Your task to perform on an android device: Show me the alarms in the clock app Image 0: 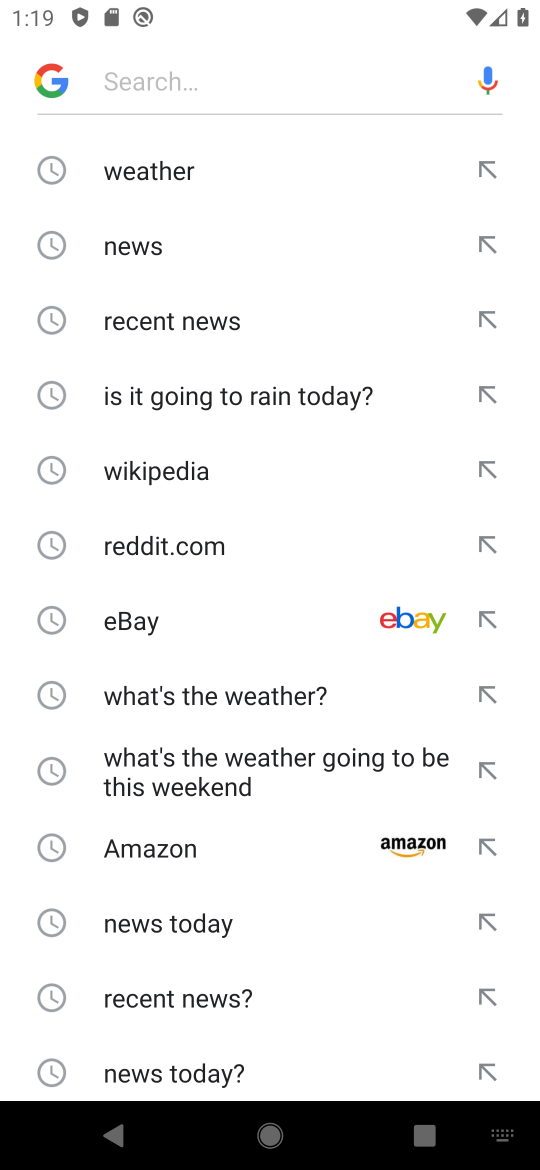
Step 0: press home button
Your task to perform on an android device: Show me the alarms in the clock app Image 1: 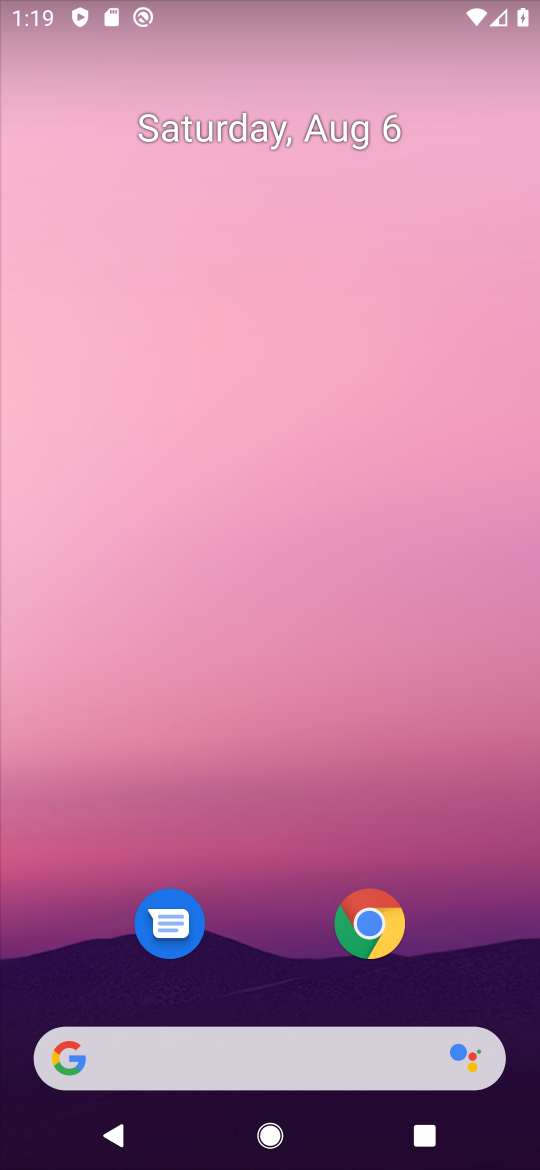
Step 1: drag from (316, 588) to (340, 425)
Your task to perform on an android device: Show me the alarms in the clock app Image 2: 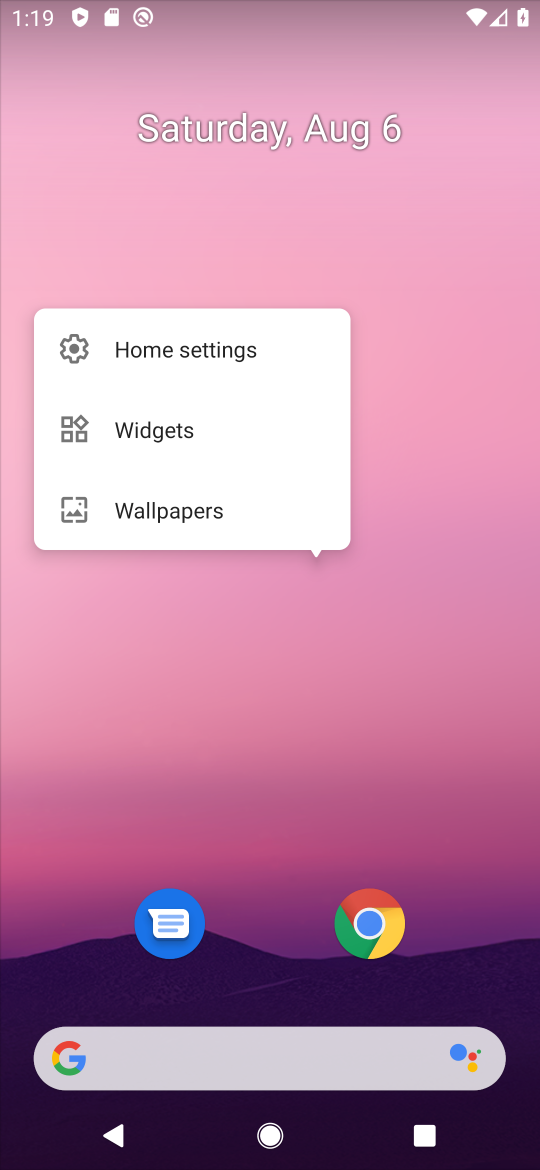
Step 2: drag from (291, 978) to (301, 264)
Your task to perform on an android device: Show me the alarms in the clock app Image 3: 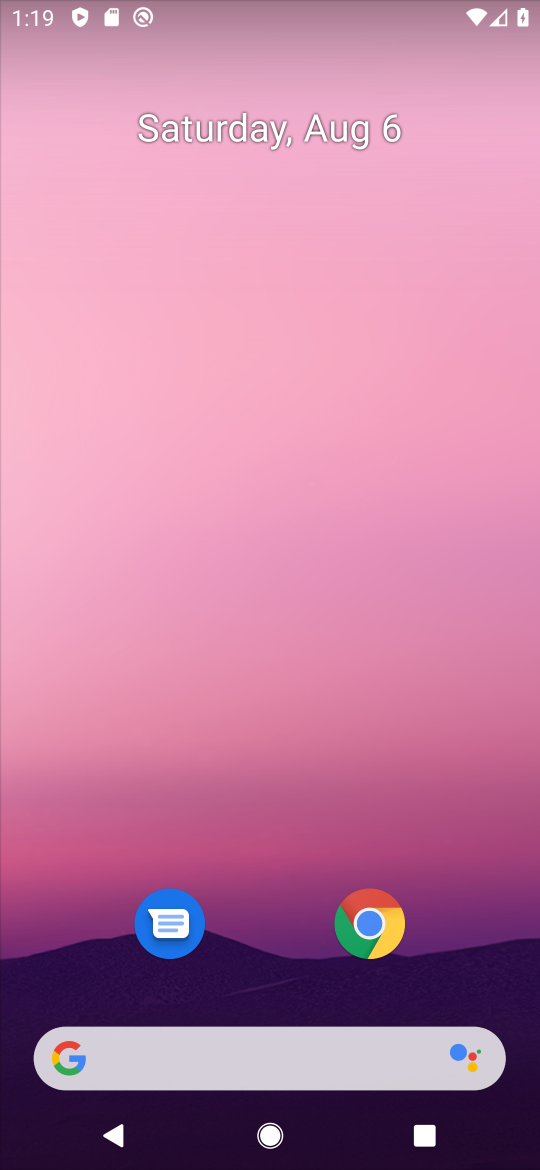
Step 3: drag from (280, 922) to (333, 340)
Your task to perform on an android device: Show me the alarms in the clock app Image 4: 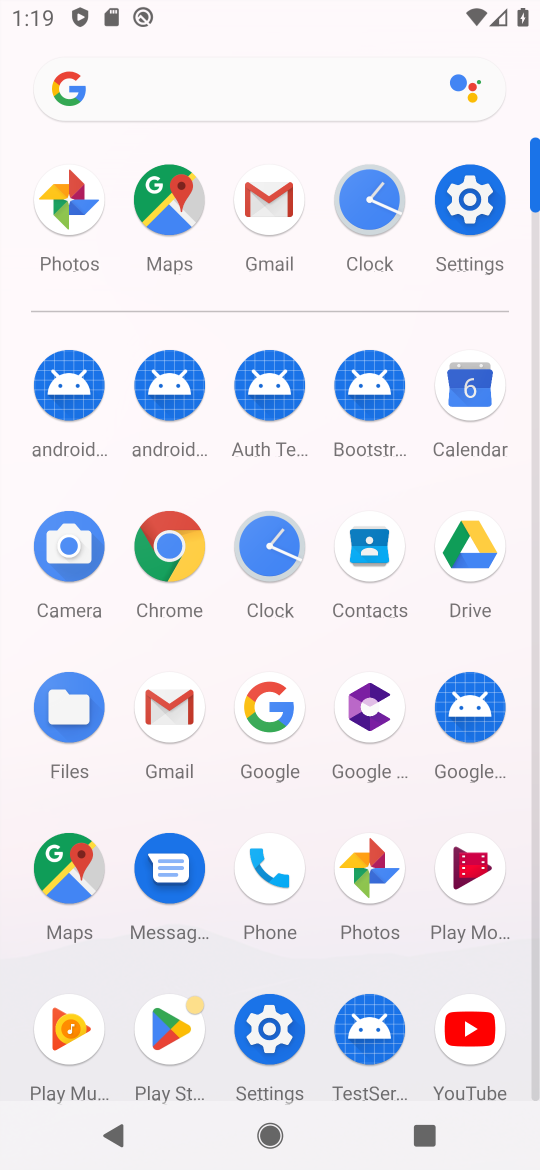
Step 4: click (255, 532)
Your task to perform on an android device: Show me the alarms in the clock app Image 5: 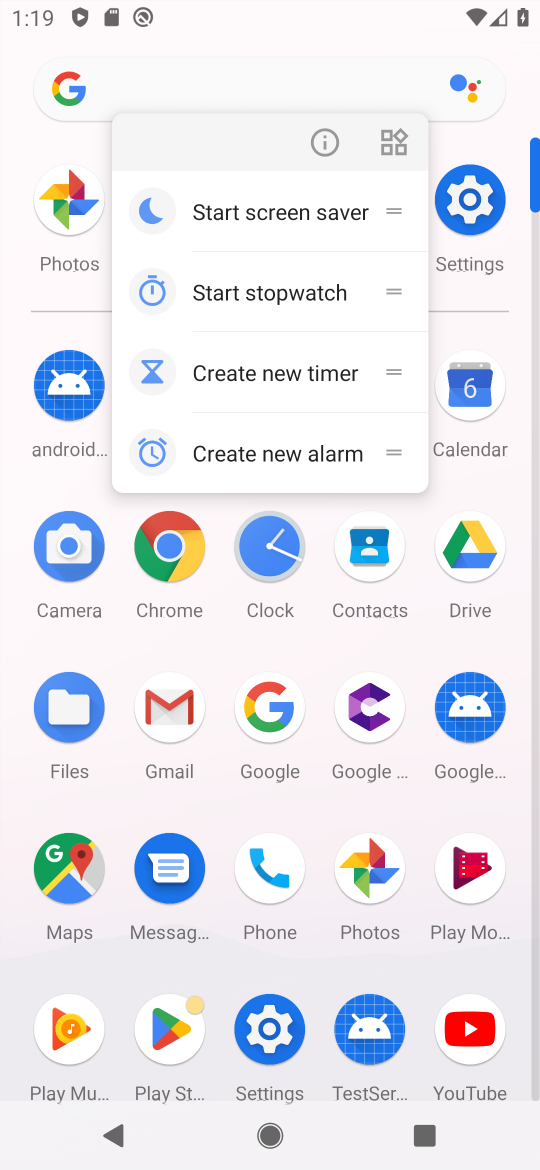
Step 5: click (317, 149)
Your task to perform on an android device: Show me the alarms in the clock app Image 6: 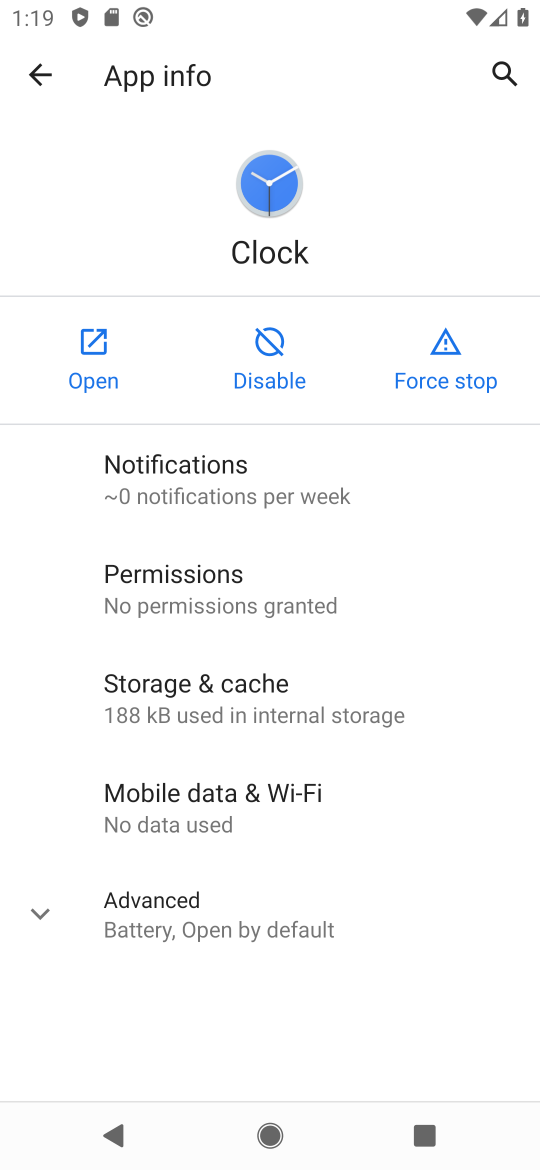
Step 6: click (93, 373)
Your task to perform on an android device: Show me the alarms in the clock app Image 7: 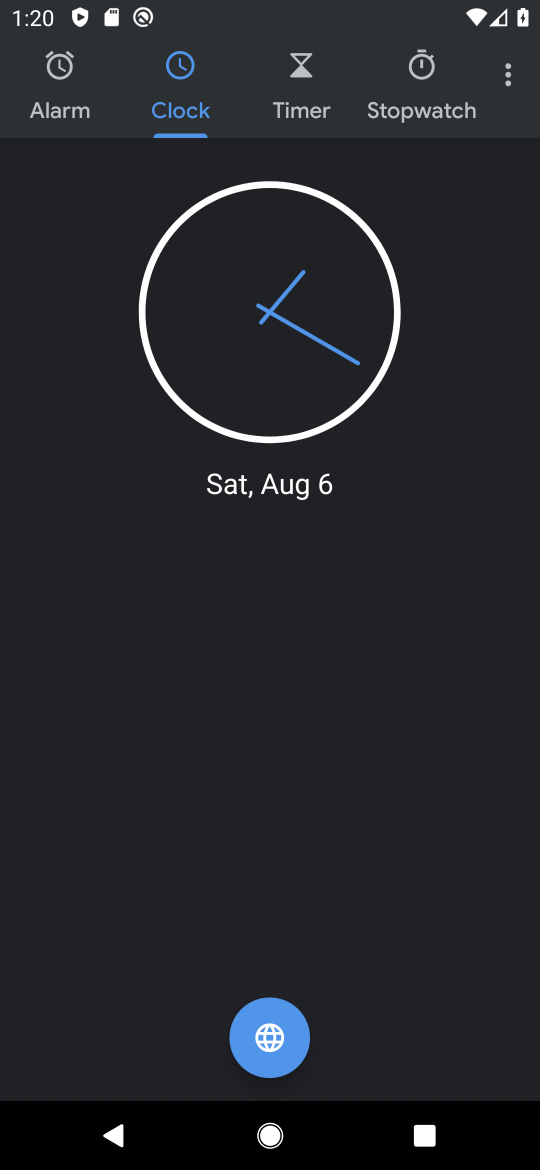
Step 7: click (45, 96)
Your task to perform on an android device: Show me the alarms in the clock app Image 8: 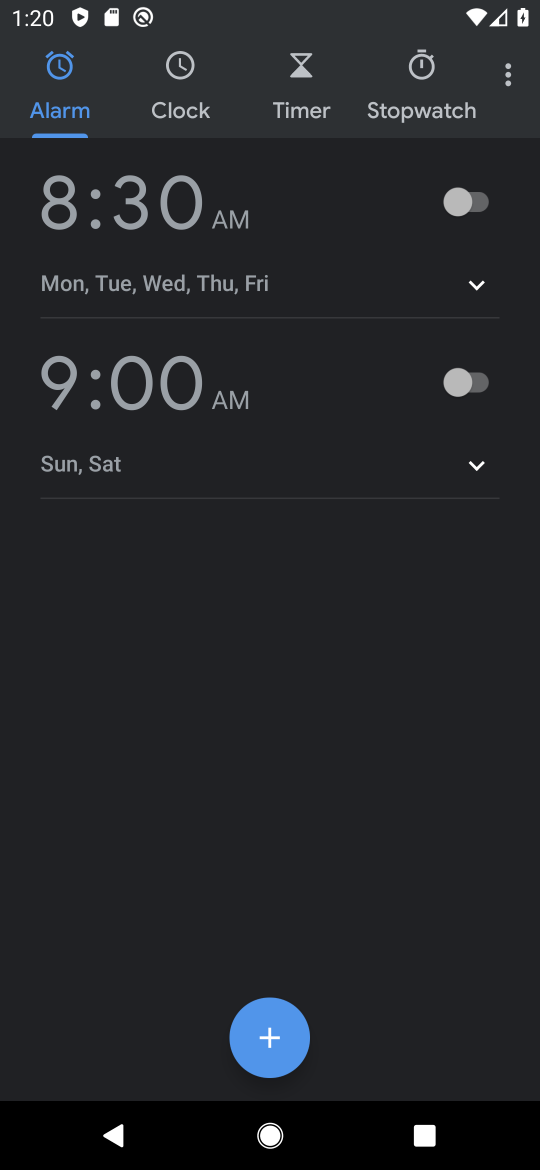
Step 8: task complete